Your task to perform on an android device: Open the calendar and show me this week's events? Image 0: 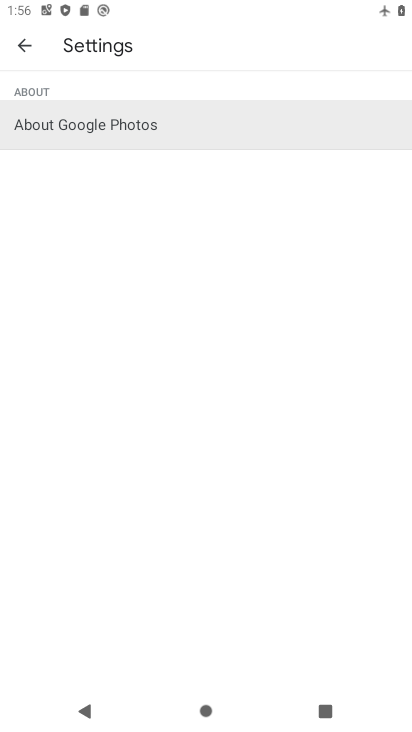
Step 0: drag from (279, 545) to (203, 127)
Your task to perform on an android device: Open the calendar and show me this week's events? Image 1: 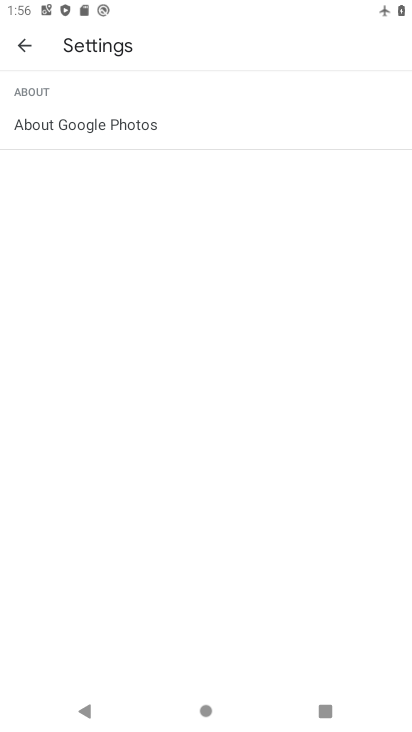
Step 1: press home button
Your task to perform on an android device: Open the calendar and show me this week's events? Image 2: 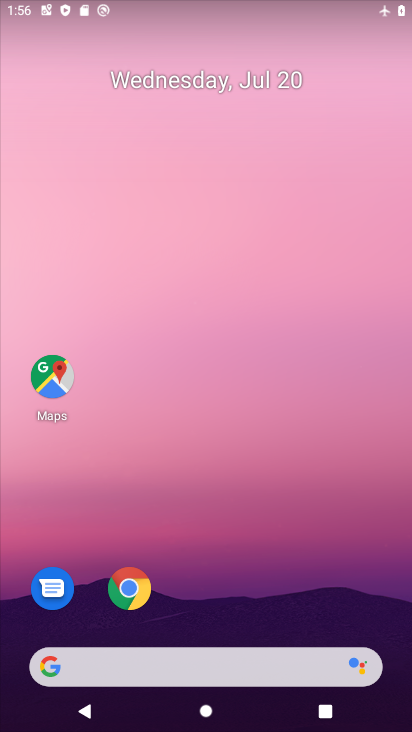
Step 2: drag from (299, 533) to (230, 37)
Your task to perform on an android device: Open the calendar and show me this week's events? Image 3: 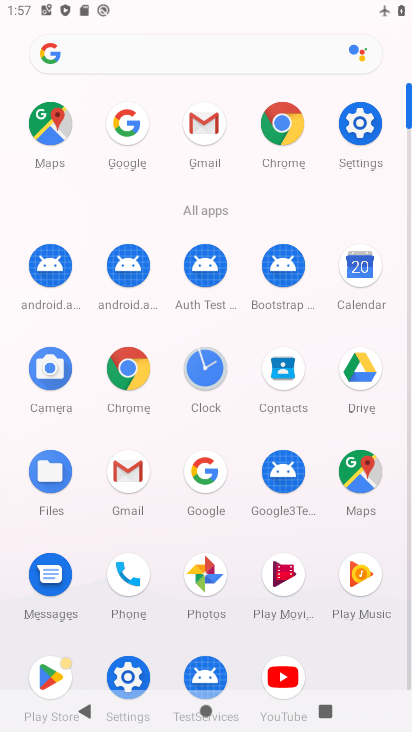
Step 3: click (356, 271)
Your task to perform on an android device: Open the calendar and show me this week's events? Image 4: 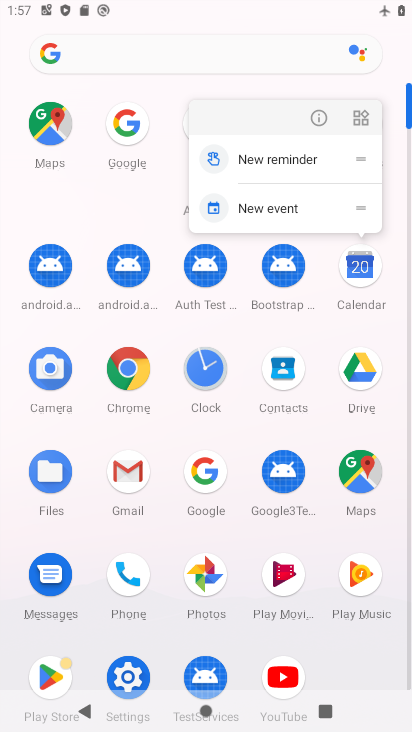
Step 4: click (355, 268)
Your task to perform on an android device: Open the calendar and show me this week's events? Image 5: 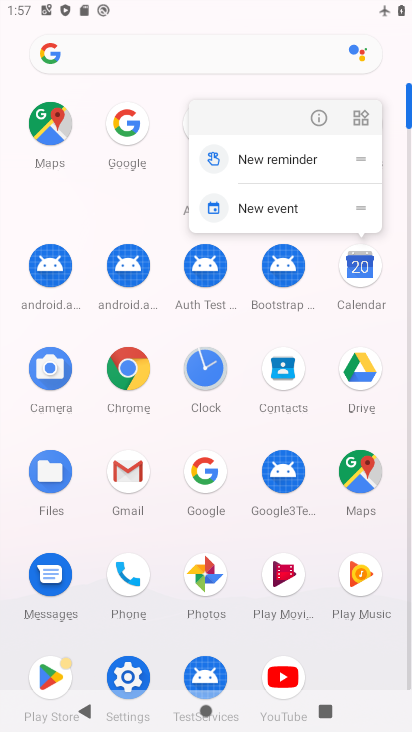
Step 5: click (355, 267)
Your task to perform on an android device: Open the calendar and show me this week's events? Image 6: 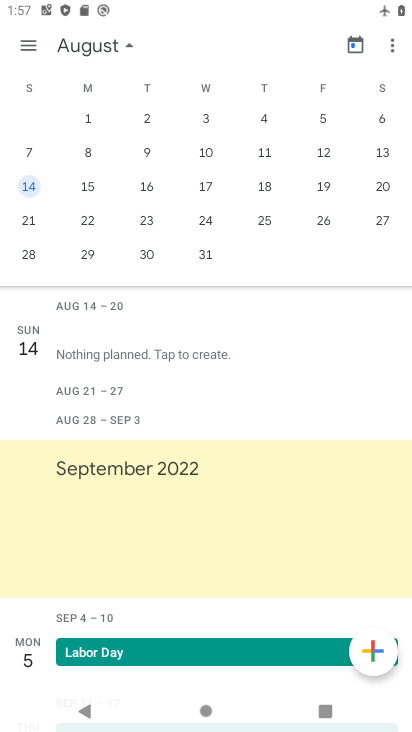
Step 6: task complete